Your task to perform on an android device: Open CNN.com Image 0: 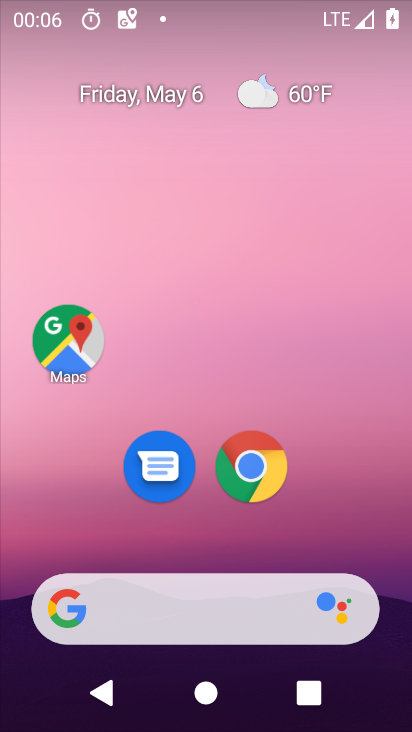
Step 0: click (248, 464)
Your task to perform on an android device: Open CNN.com Image 1: 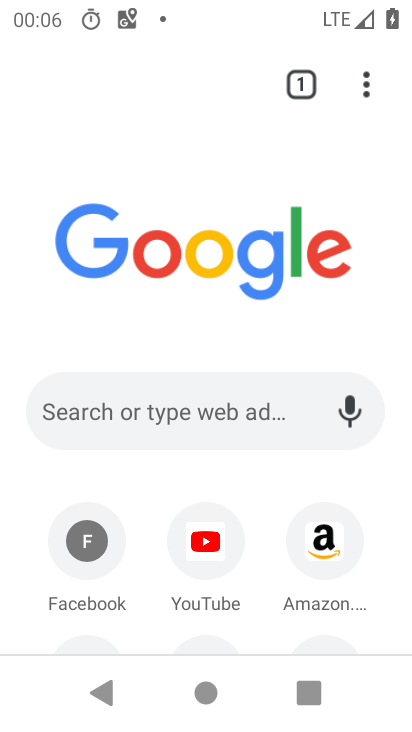
Step 1: drag from (146, 646) to (197, 290)
Your task to perform on an android device: Open CNN.com Image 2: 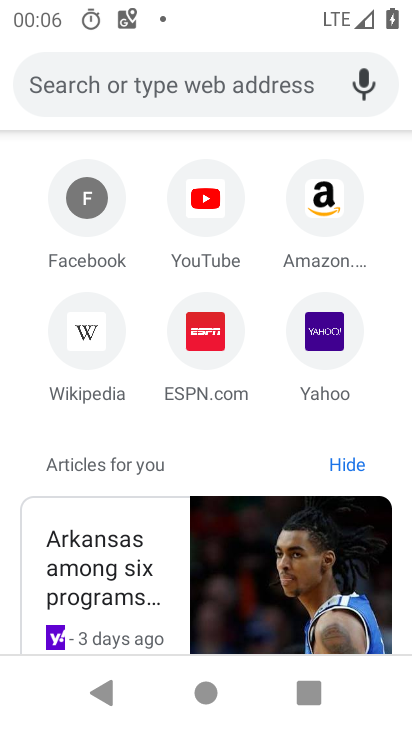
Step 2: click (131, 86)
Your task to perform on an android device: Open CNN.com Image 3: 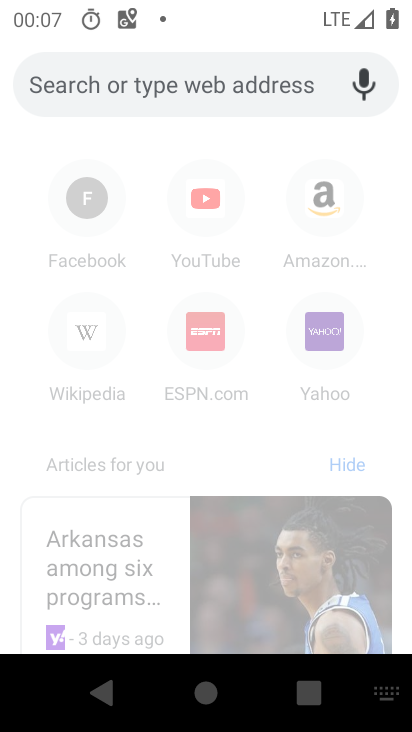
Step 3: type "cNN.com"
Your task to perform on an android device: Open CNN.com Image 4: 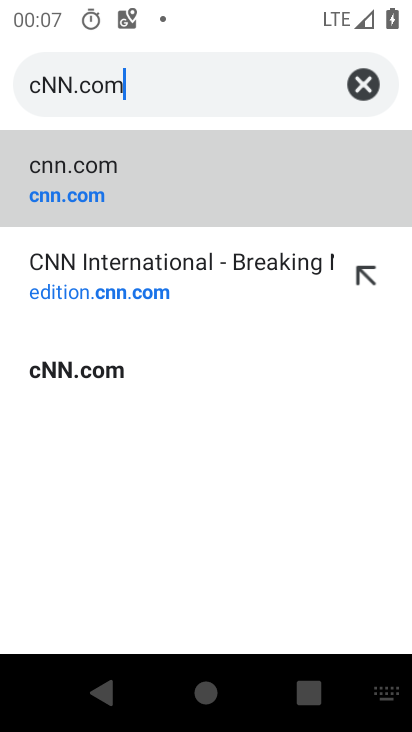
Step 4: click (101, 379)
Your task to perform on an android device: Open CNN.com Image 5: 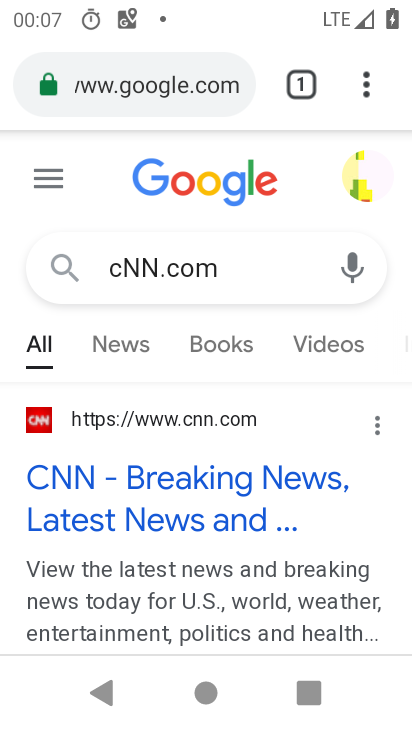
Step 5: task complete